Your task to perform on an android device: turn off airplane mode Image 0: 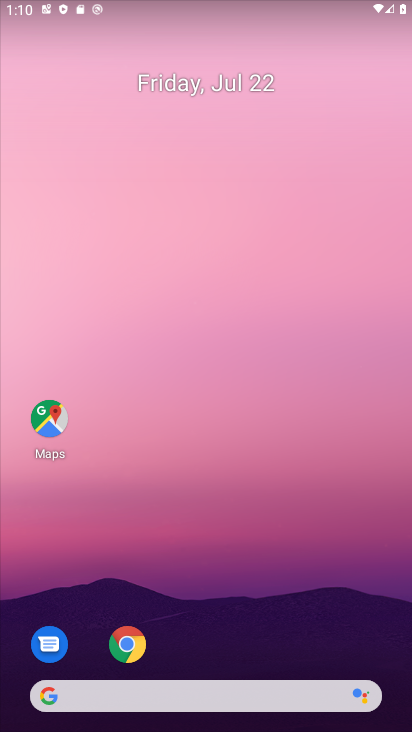
Step 0: drag from (148, 12) to (143, 441)
Your task to perform on an android device: turn off airplane mode Image 1: 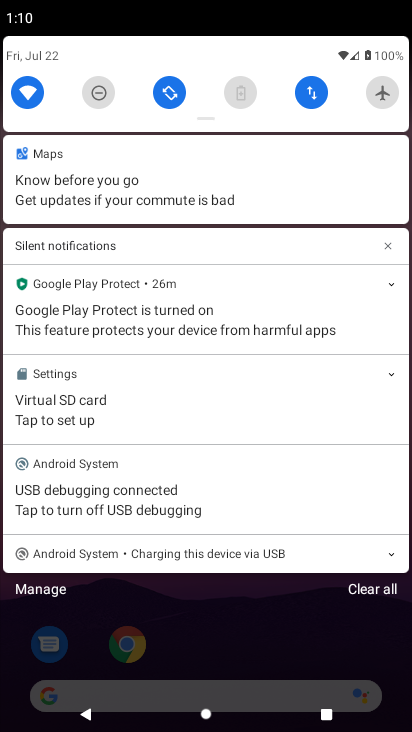
Step 1: task complete